Your task to perform on an android device: What's on my calendar tomorrow? Image 0: 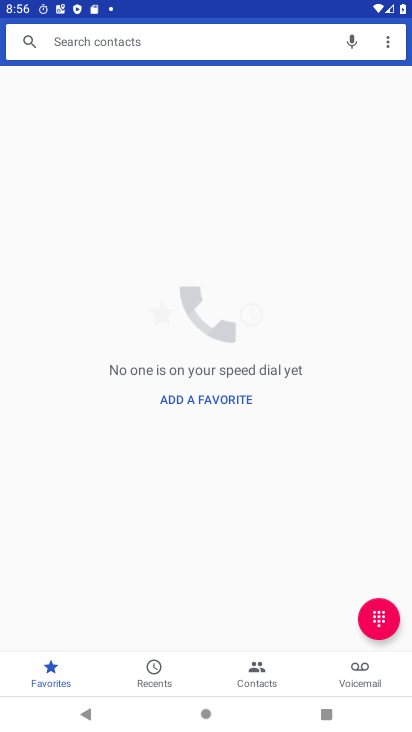
Step 0: press home button
Your task to perform on an android device: What's on my calendar tomorrow? Image 1: 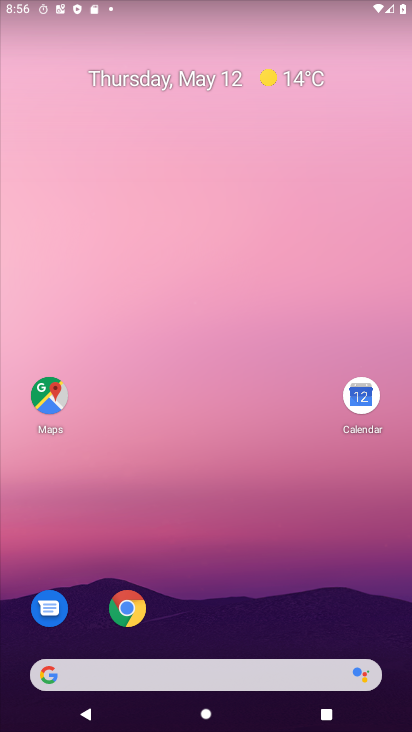
Step 1: click (180, 83)
Your task to perform on an android device: What's on my calendar tomorrow? Image 2: 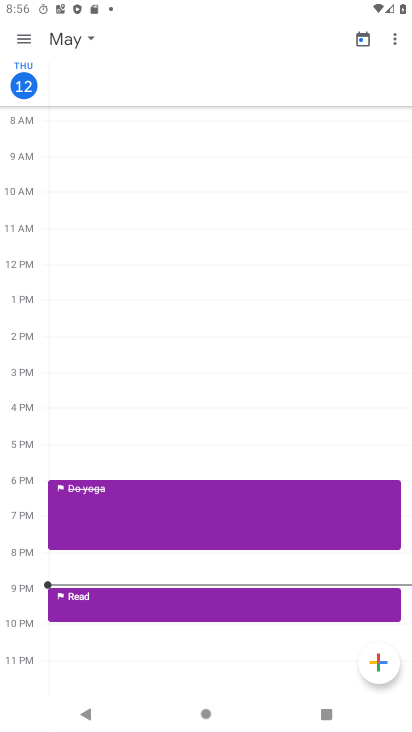
Step 2: click (35, 41)
Your task to perform on an android device: What's on my calendar tomorrow? Image 3: 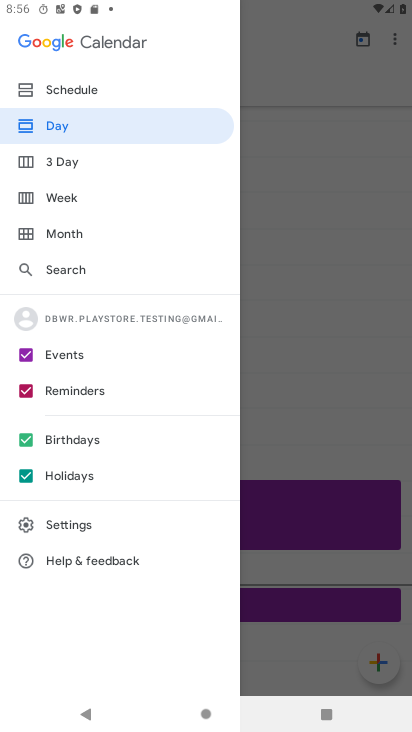
Step 3: click (346, 201)
Your task to perform on an android device: What's on my calendar tomorrow? Image 4: 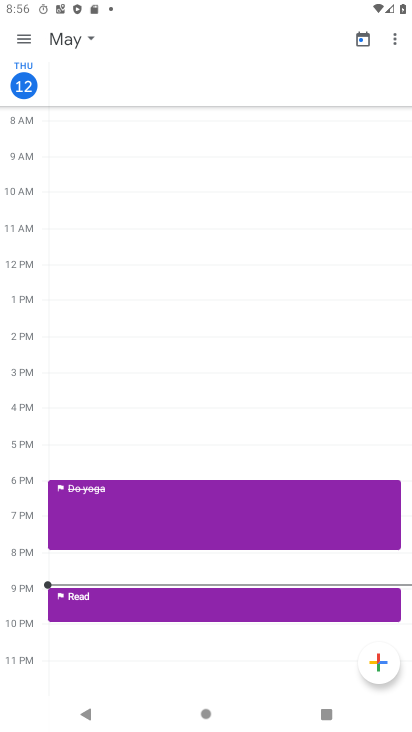
Step 4: click (405, 30)
Your task to perform on an android device: What's on my calendar tomorrow? Image 5: 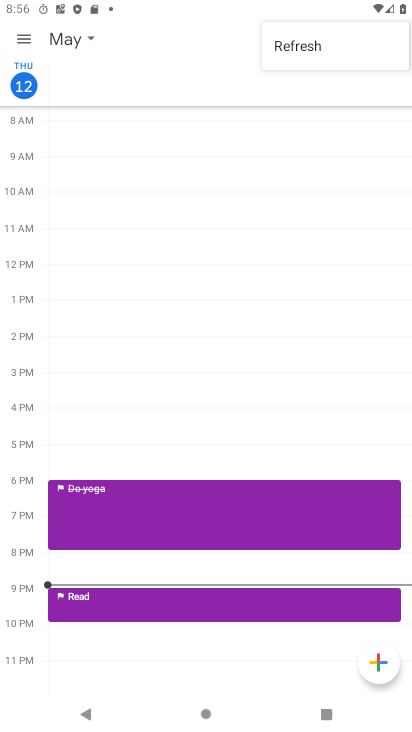
Step 5: click (276, 216)
Your task to perform on an android device: What's on my calendar tomorrow? Image 6: 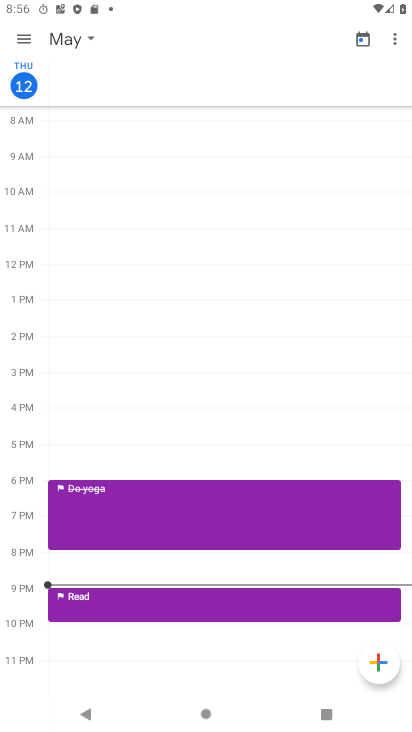
Step 6: click (66, 33)
Your task to perform on an android device: What's on my calendar tomorrow? Image 7: 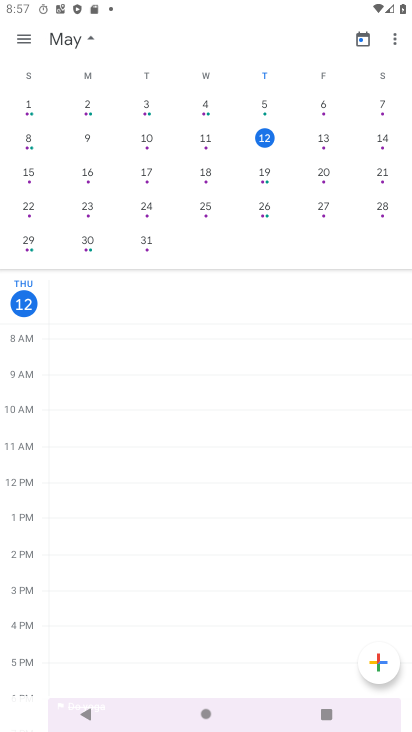
Step 7: click (71, 30)
Your task to perform on an android device: What's on my calendar tomorrow? Image 8: 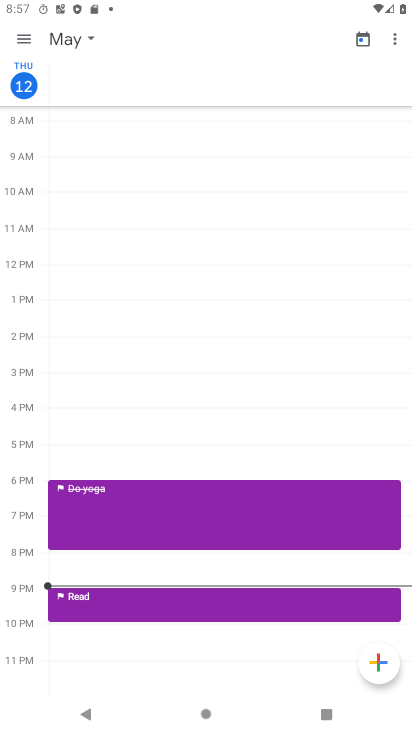
Step 8: task complete